Your task to perform on an android device: Open calendar and show me the second week of next month Image 0: 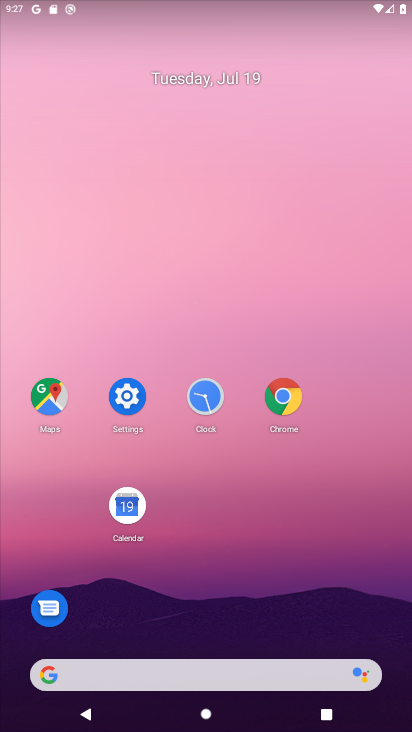
Step 0: drag from (380, 579) to (350, 44)
Your task to perform on an android device: Open calendar and show me the second week of next month Image 1: 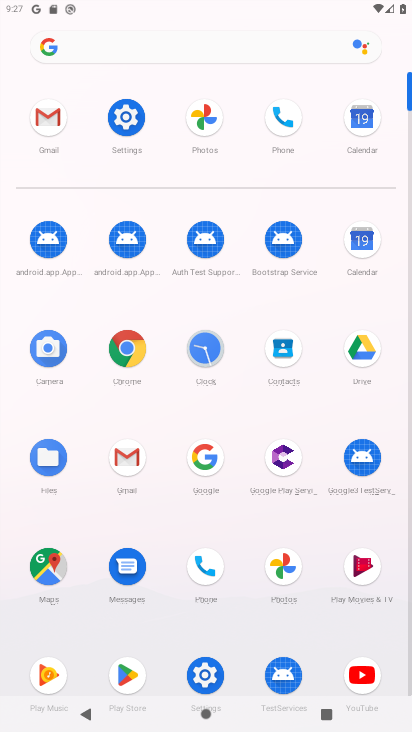
Step 1: click (359, 241)
Your task to perform on an android device: Open calendar and show me the second week of next month Image 2: 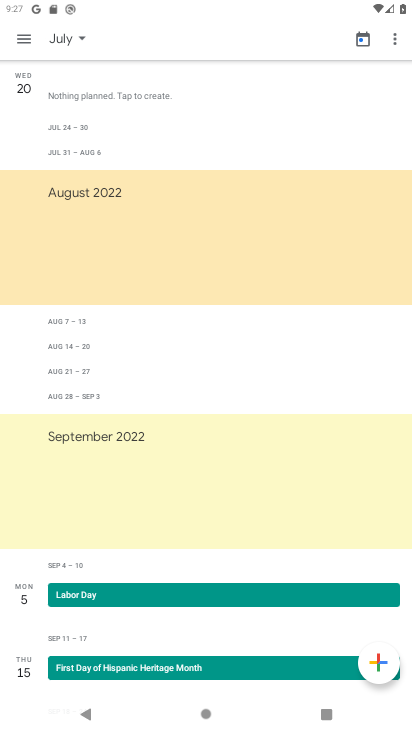
Step 2: click (81, 39)
Your task to perform on an android device: Open calendar and show me the second week of next month Image 3: 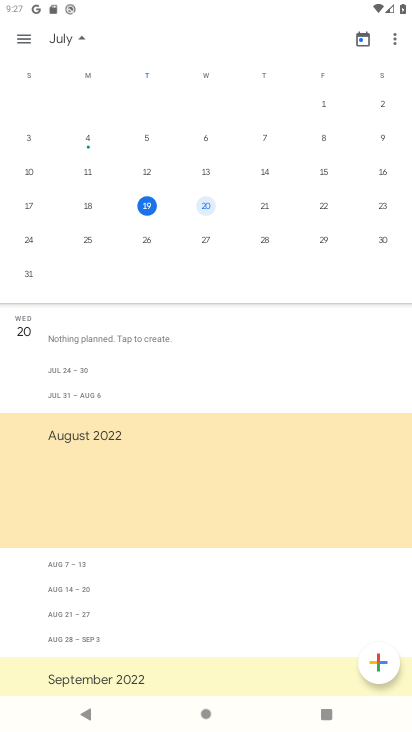
Step 3: drag from (388, 214) to (100, 162)
Your task to perform on an android device: Open calendar and show me the second week of next month Image 4: 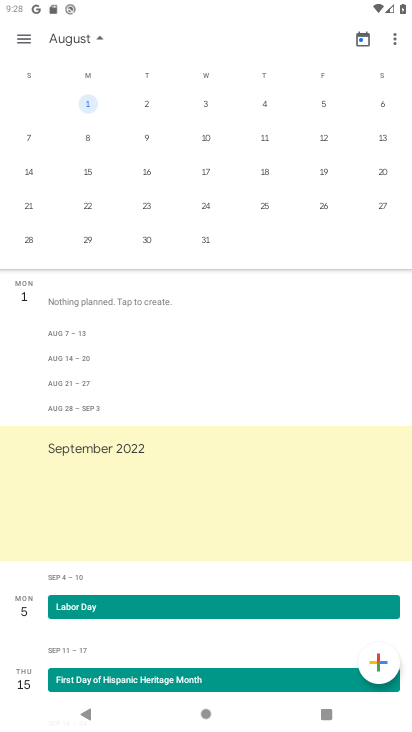
Step 4: click (205, 133)
Your task to perform on an android device: Open calendar and show me the second week of next month Image 5: 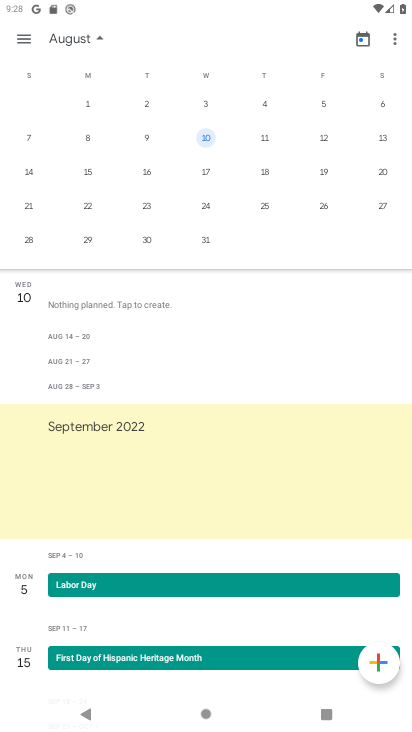
Step 5: task complete